Your task to perform on an android device: snooze an email in the gmail app Image 0: 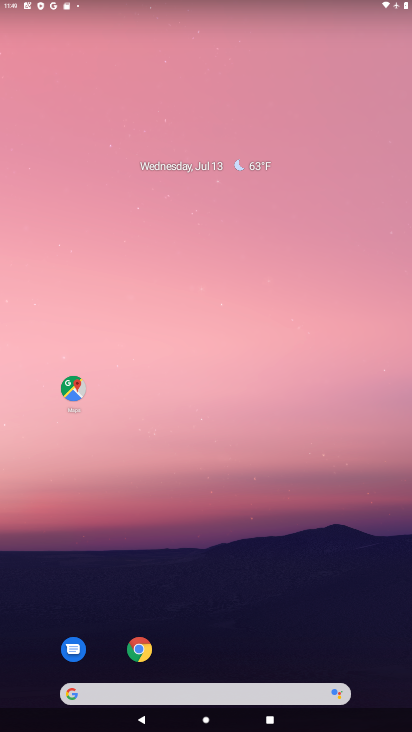
Step 0: drag from (221, 611) to (256, 355)
Your task to perform on an android device: snooze an email in the gmail app Image 1: 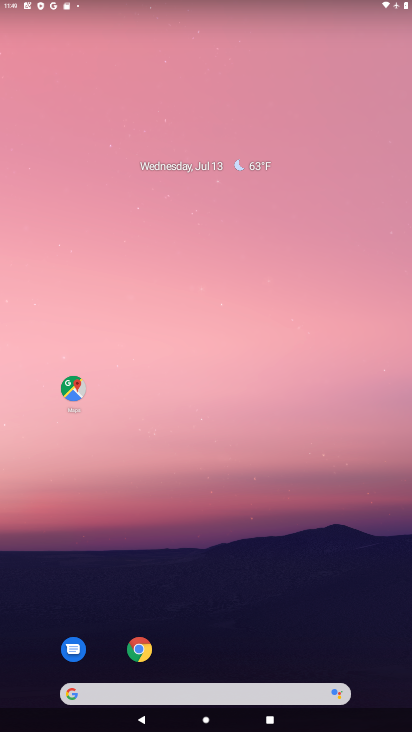
Step 1: drag from (194, 581) to (212, 346)
Your task to perform on an android device: snooze an email in the gmail app Image 2: 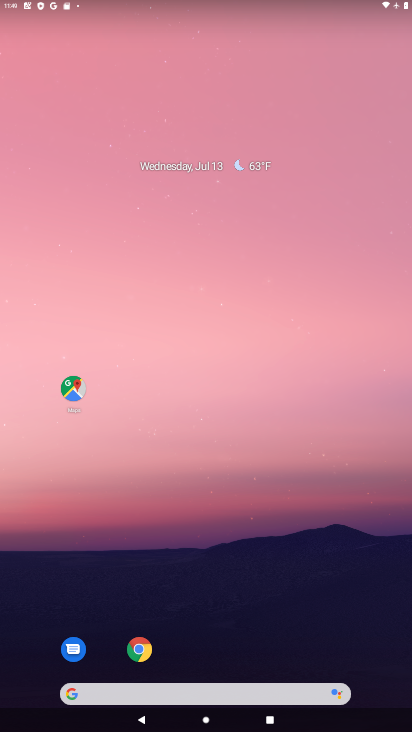
Step 2: drag from (193, 642) to (205, 257)
Your task to perform on an android device: snooze an email in the gmail app Image 3: 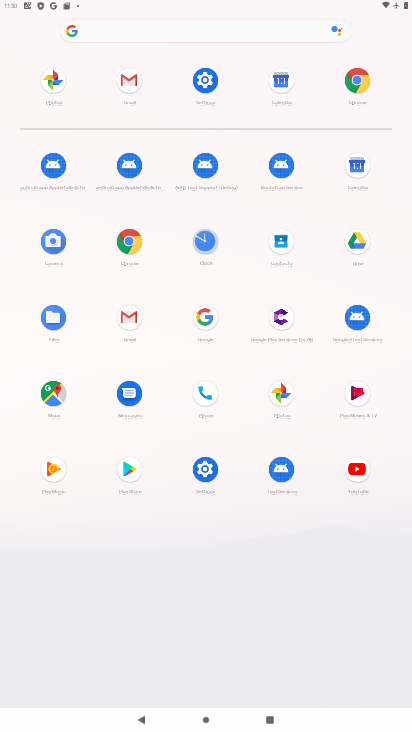
Step 3: click (129, 309)
Your task to perform on an android device: snooze an email in the gmail app Image 4: 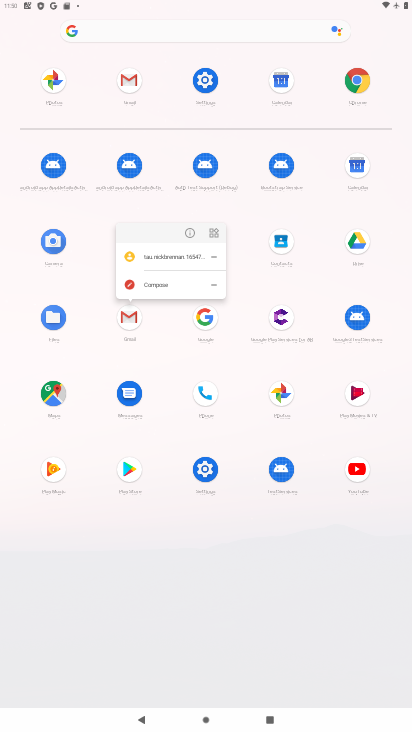
Step 4: click (130, 307)
Your task to perform on an android device: snooze an email in the gmail app Image 5: 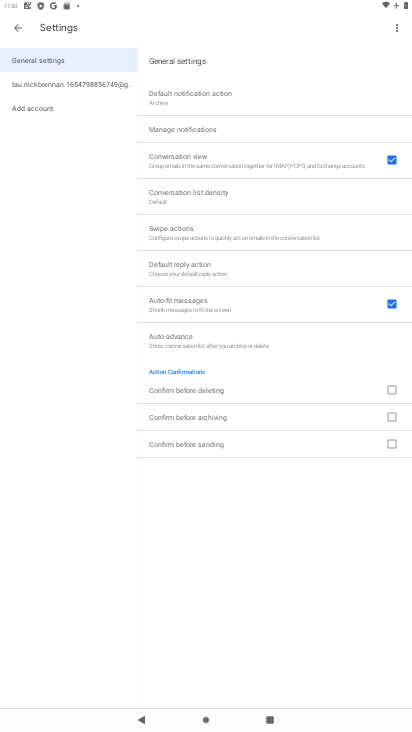
Step 5: click (13, 25)
Your task to perform on an android device: snooze an email in the gmail app Image 6: 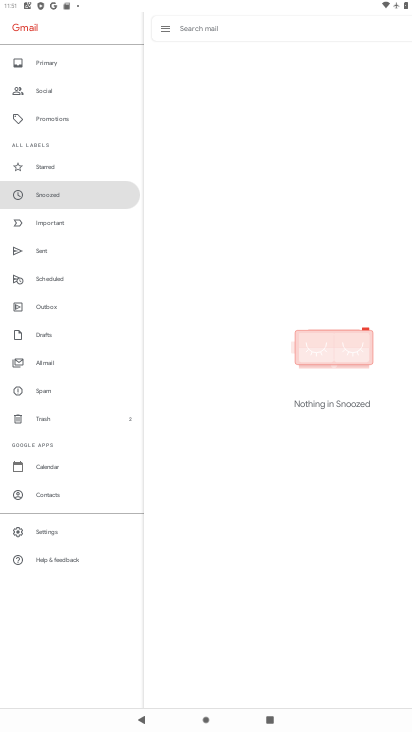
Step 6: task complete